Your task to perform on an android device: Play the last video I watched on Youtube Image 0: 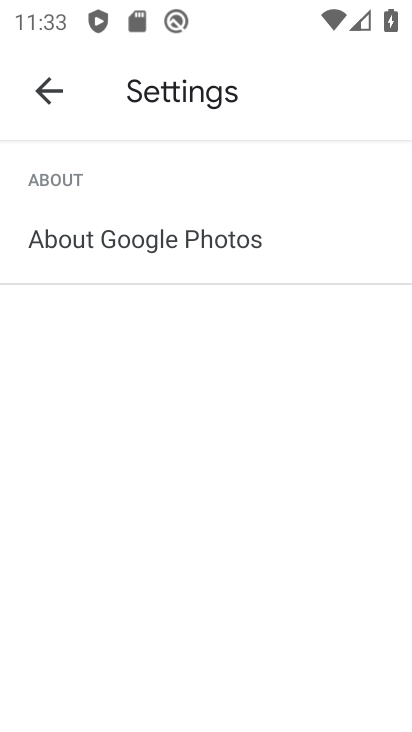
Step 0: press back button
Your task to perform on an android device: Play the last video I watched on Youtube Image 1: 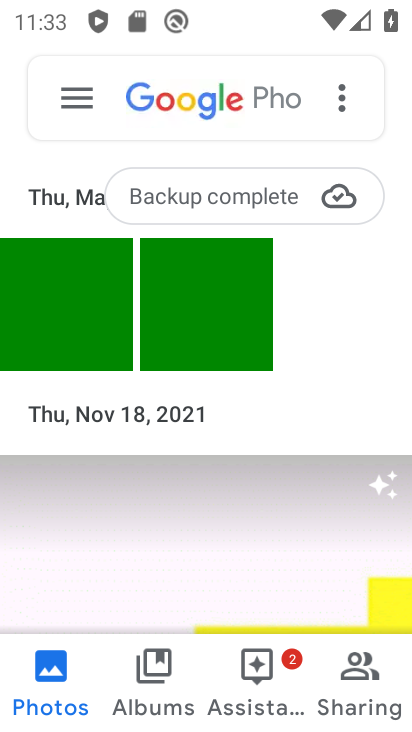
Step 1: press back button
Your task to perform on an android device: Play the last video I watched on Youtube Image 2: 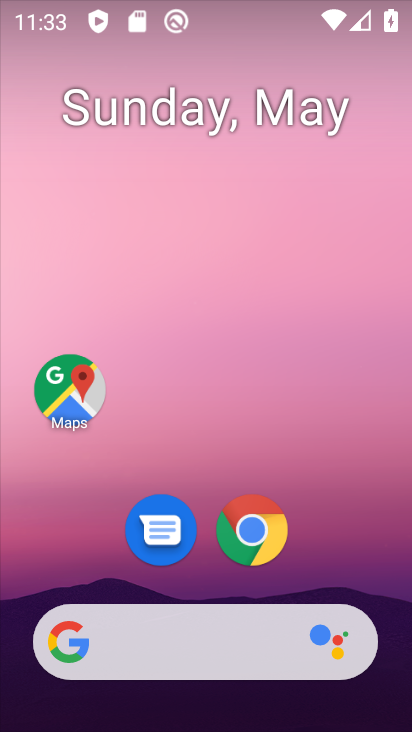
Step 2: drag from (223, 583) to (312, 16)
Your task to perform on an android device: Play the last video I watched on Youtube Image 3: 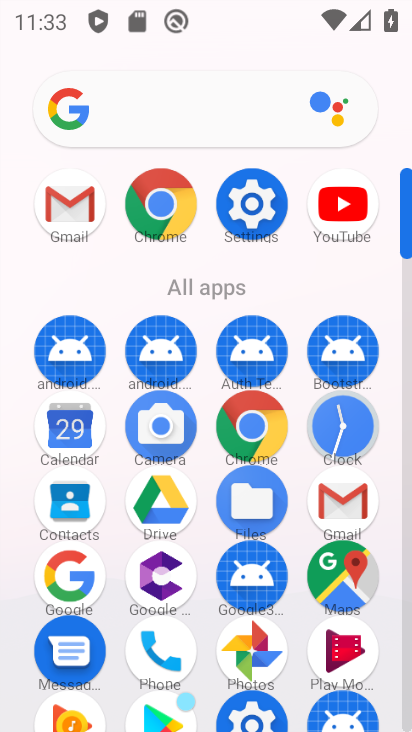
Step 3: click (344, 206)
Your task to perform on an android device: Play the last video I watched on Youtube Image 4: 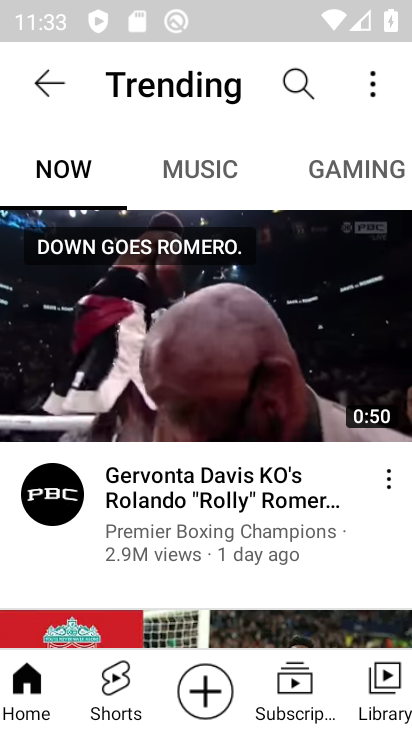
Step 4: click (371, 705)
Your task to perform on an android device: Play the last video I watched on Youtube Image 5: 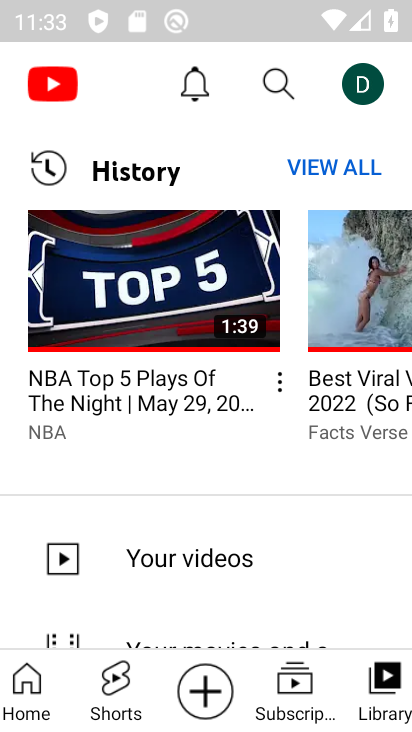
Step 5: click (153, 286)
Your task to perform on an android device: Play the last video I watched on Youtube Image 6: 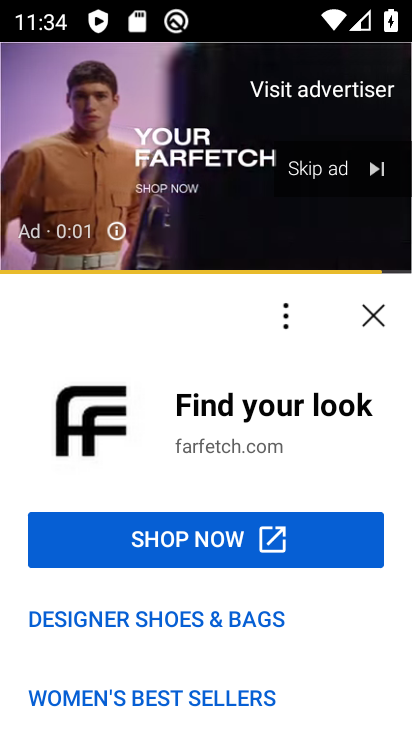
Step 6: task complete